Your task to perform on an android device: Do I have any events this weekend? Image 0: 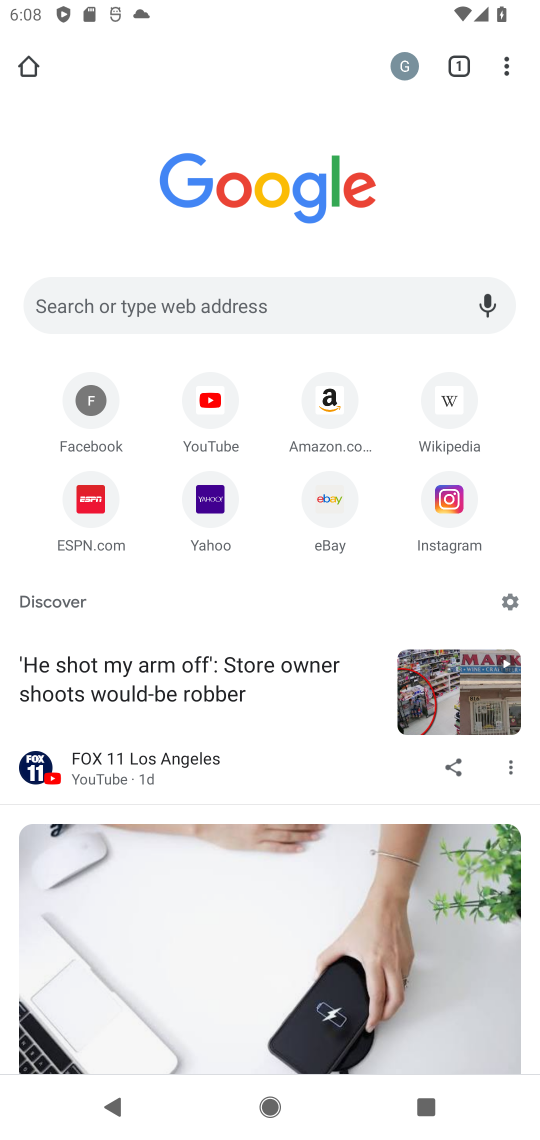
Step 0: press home button
Your task to perform on an android device: Do I have any events this weekend? Image 1: 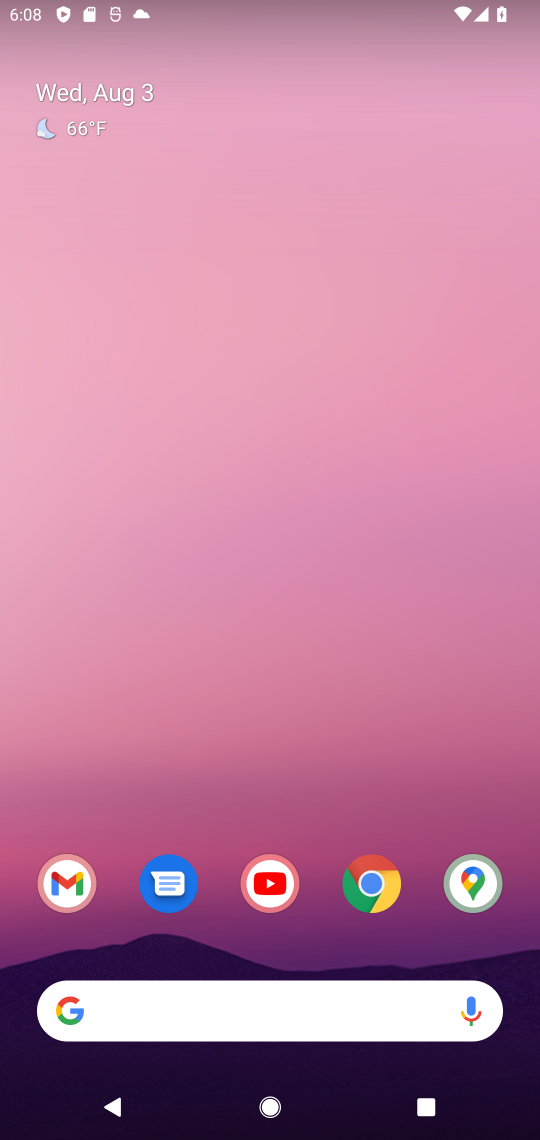
Step 1: drag from (231, 927) to (271, 324)
Your task to perform on an android device: Do I have any events this weekend? Image 2: 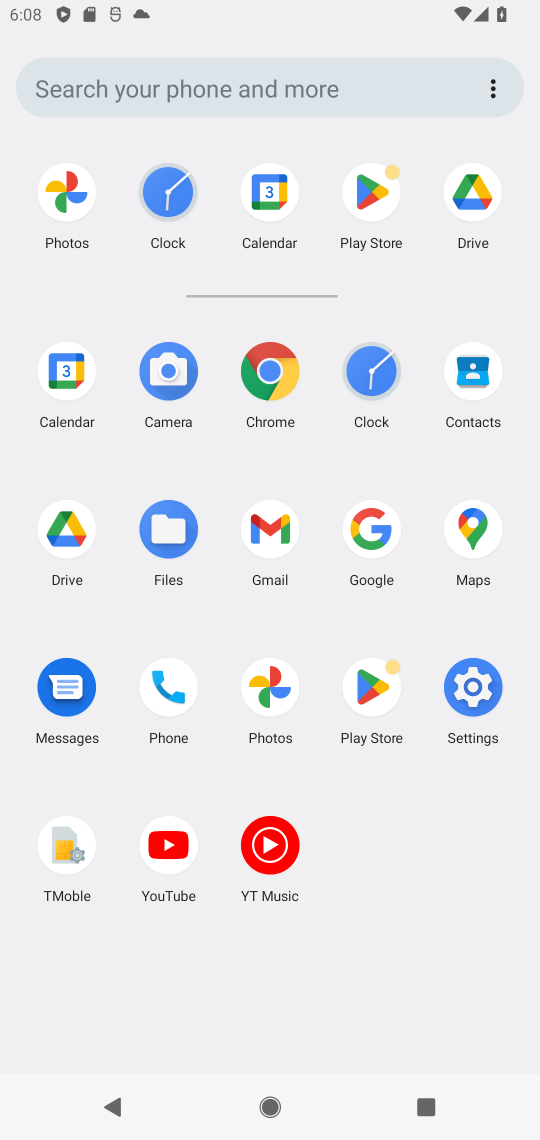
Step 2: click (268, 198)
Your task to perform on an android device: Do I have any events this weekend? Image 3: 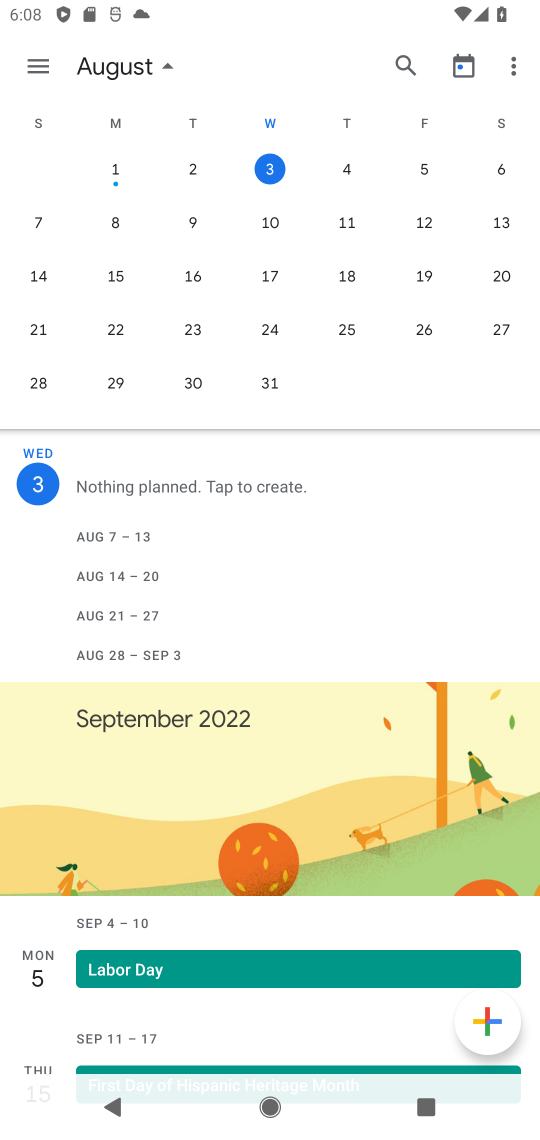
Step 3: click (498, 166)
Your task to perform on an android device: Do I have any events this weekend? Image 4: 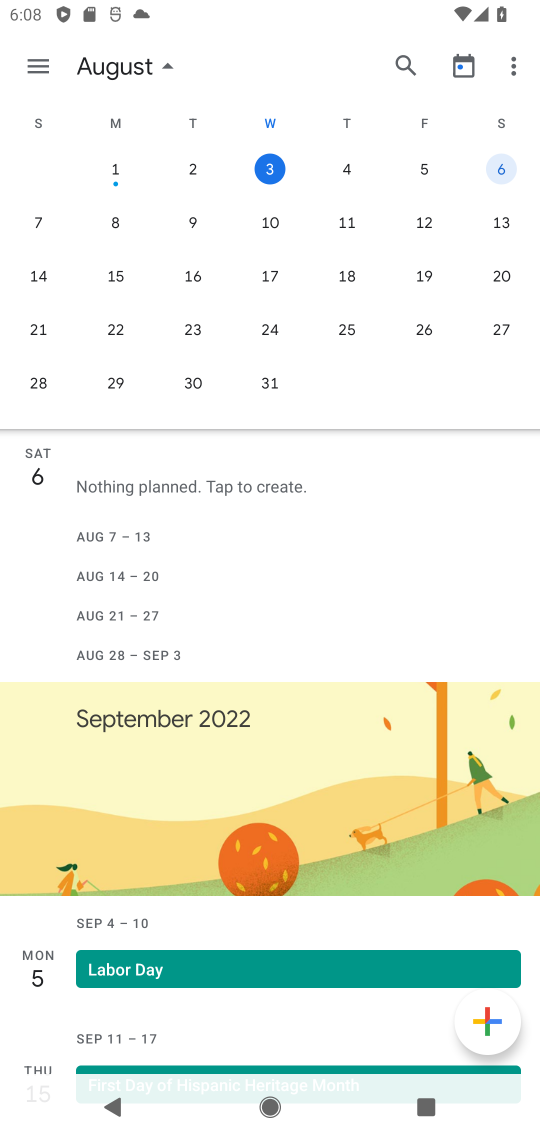
Step 4: task complete